Your task to perform on an android device: Set the phone to "Do not disturb". Image 0: 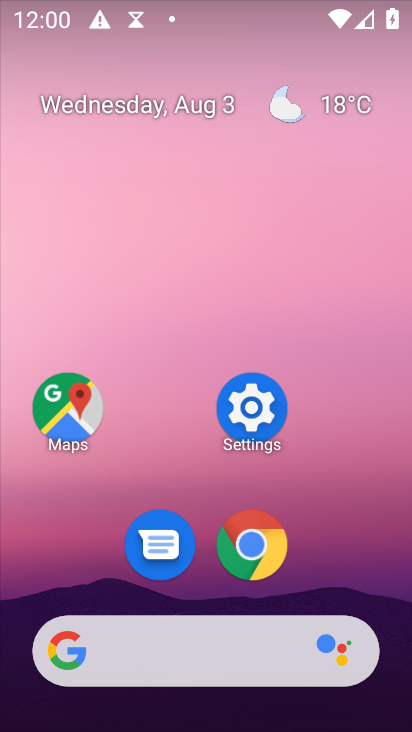
Step 0: press home button
Your task to perform on an android device: Set the phone to "Do not disturb". Image 1: 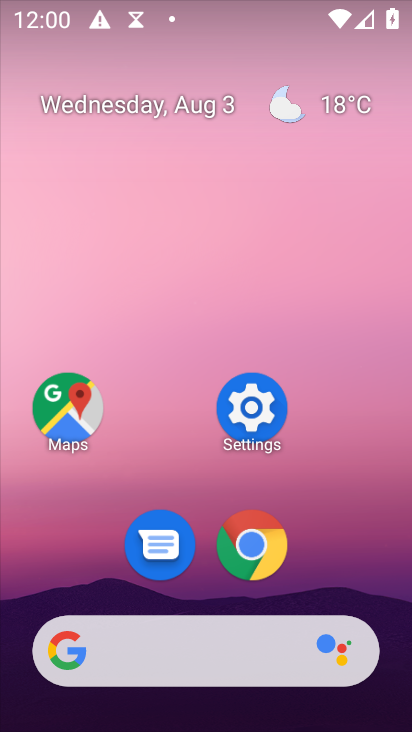
Step 1: click (244, 411)
Your task to perform on an android device: Set the phone to "Do not disturb". Image 2: 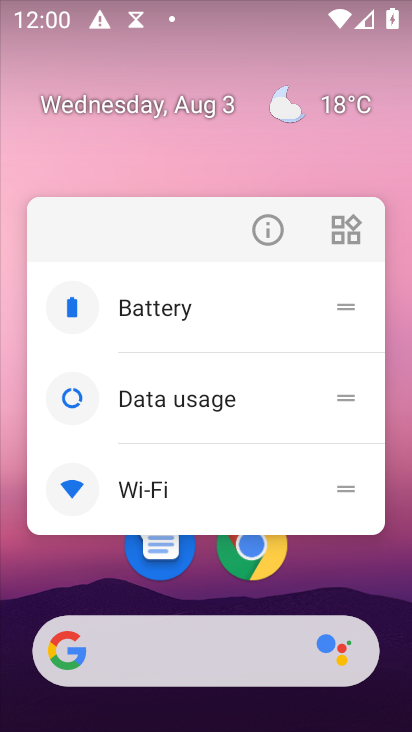
Step 2: click (366, 567)
Your task to perform on an android device: Set the phone to "Do not disturb". Image 3: 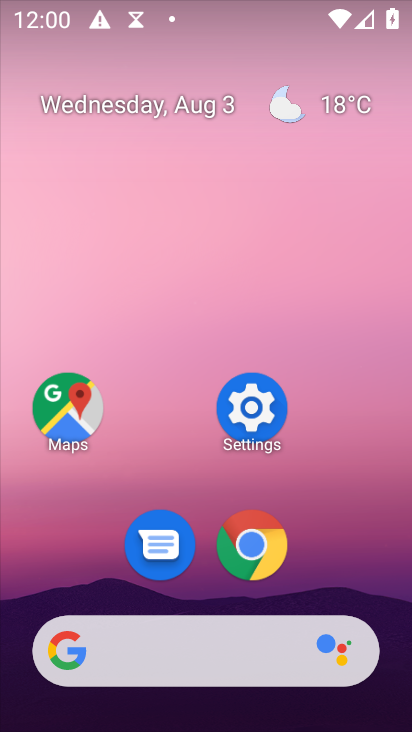
Step 3: click (262, 417)
Your task to perform on an android device: Set the phone to "Do not disturb". Image 4: 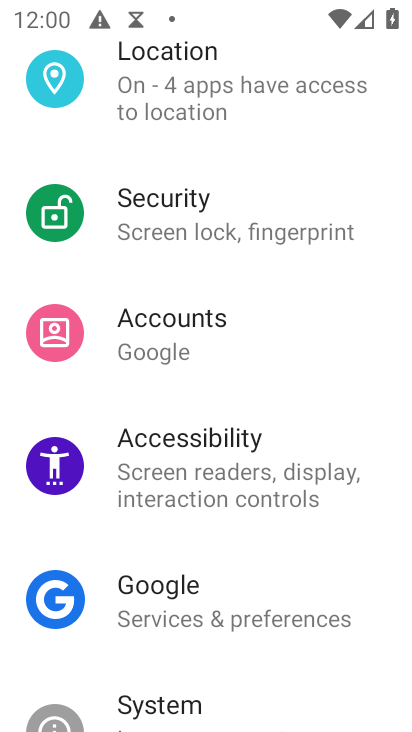
Step 4: drag from (286, 188) to (278, 729)
Your task to perform on an android device: Set the phone to "Do not disturb". Image 5: 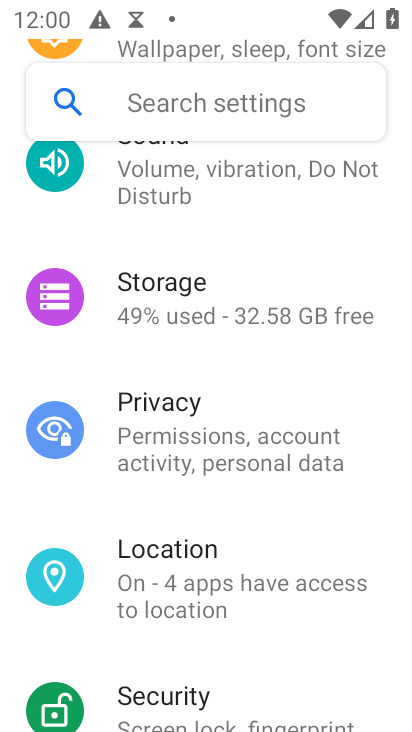
Step 5: drag from (241, 272) to (213, 577)
Your task to perform on an android device: Set the phone to "Do not disturb". Image 6: 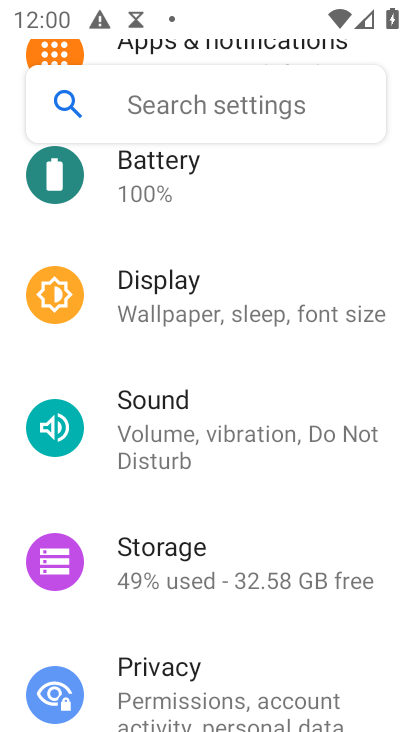
Step 6: click (174, 434)
Your task to perform on an android device: Set the phone to "Do not disturb". Image 7: 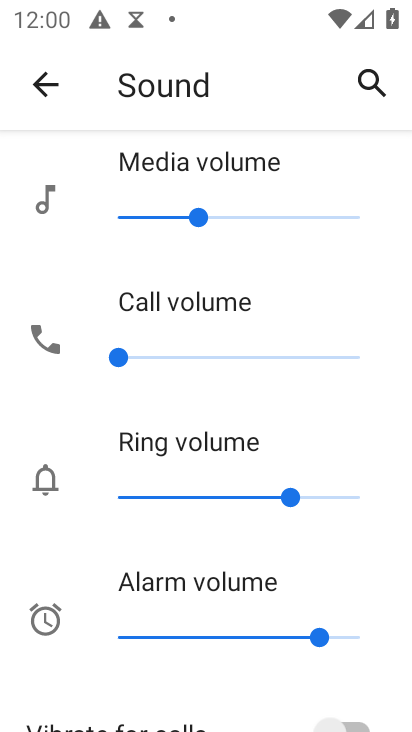
Step 7: drag from (176, 678) to (318, 122)
Your task to perform on an android device: Set the phone to "Do not disturb". Image 8: 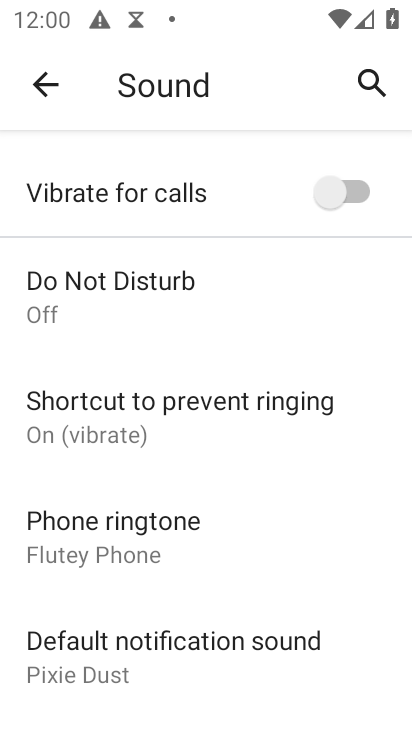
Step 8: click (59, 315)
Your task to perform on an android device: Set the phone to "Do not disturb". Image 9: 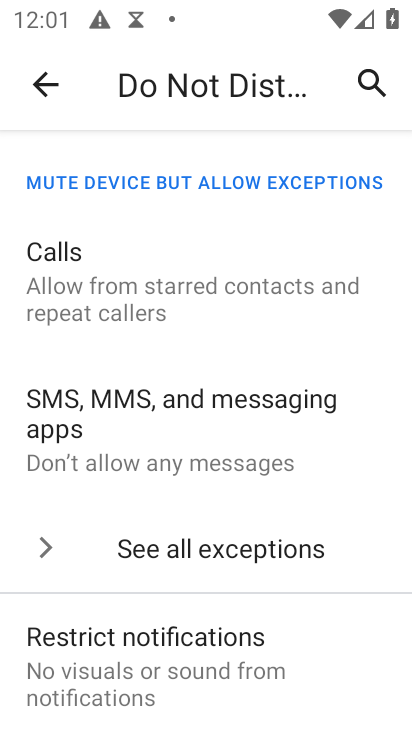
Step 9: drag from (108, 636) to (313, 117)
Your task to perform on an android device: Set the phone to "Do not disturb". Image 10: 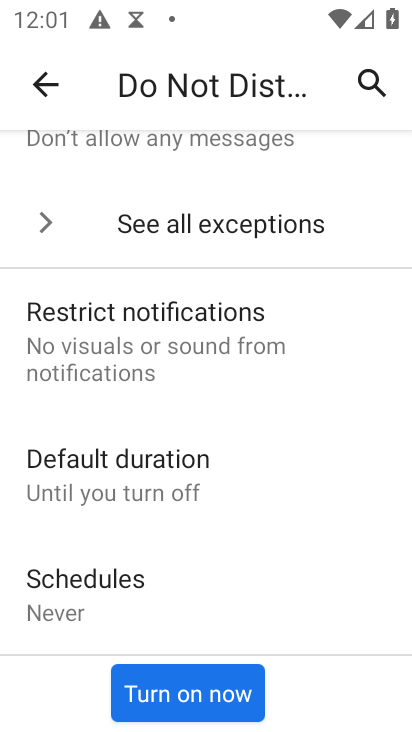
Step 10: drag from (160, 600) to (285, 206)
Your task to perform on an android device: Set the phone to "Do not disturb". Image 11: 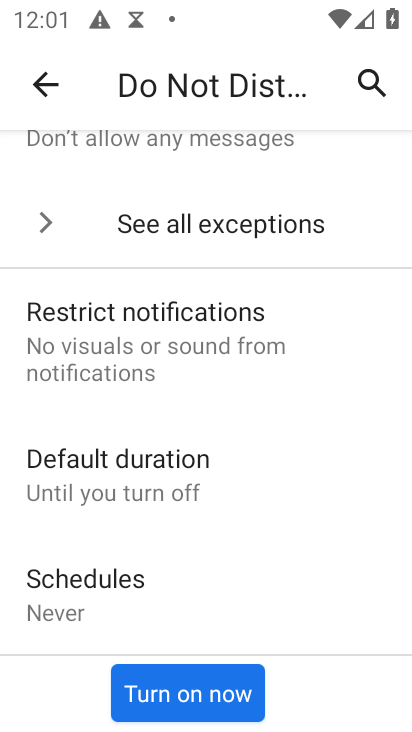
Step 11: click (199, 708)
Your task to perform on an android device: Set the phone to "Do not disturb". Image 12: 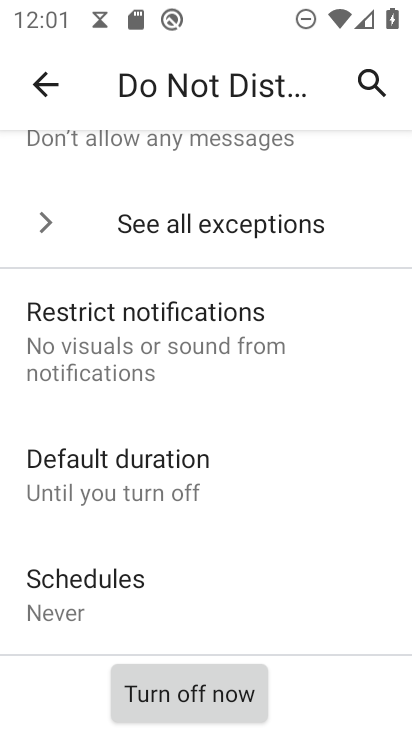
Step 12: task complete